Your task to perform on an android device: Clear the shopping cart on amazon.com. Search for "logitech g903" on amazon.com, select the first entry, and add it to the cart. Image 0: 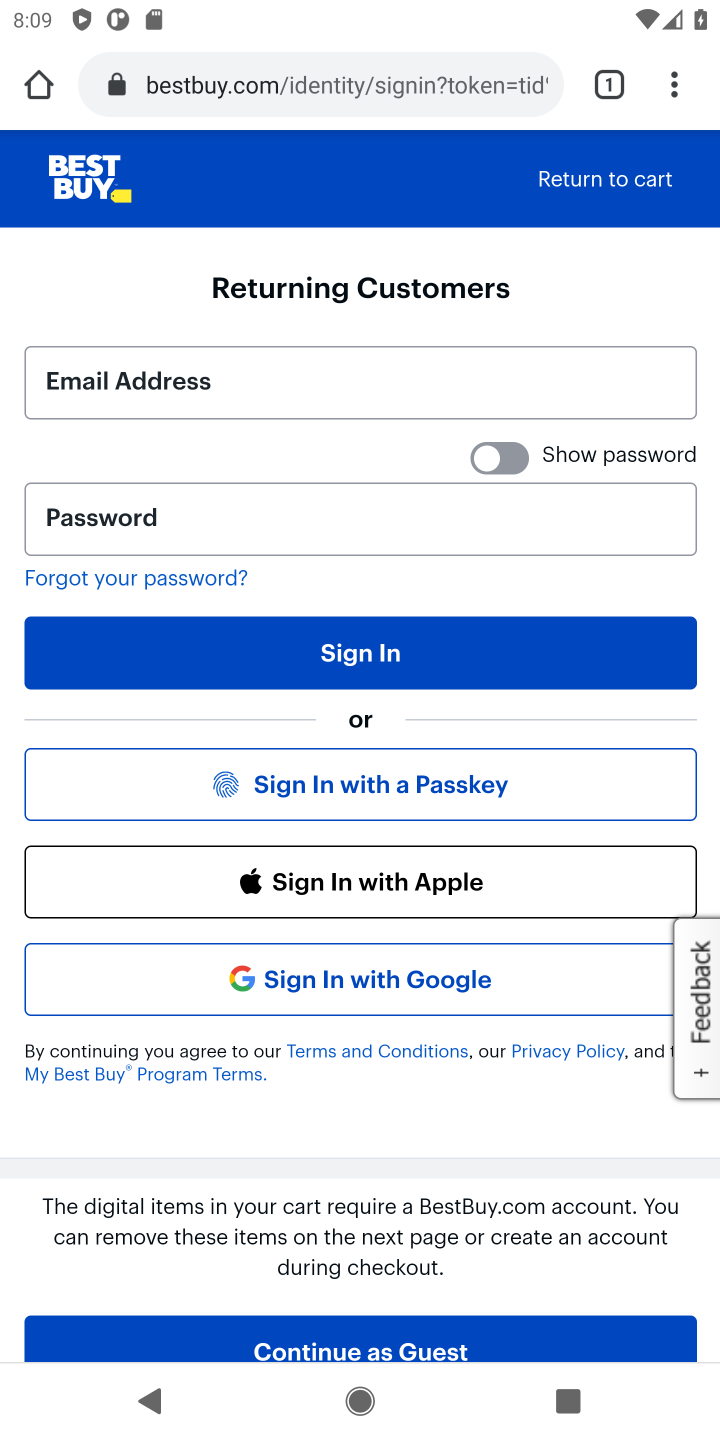
Step 0: click (292, 105)
Your task to perform on an android device: Clear the shopping cart on amazon.com. Search for "logitech g903" on amazon.com, select the first entry, and add it to the cart. Image 1: 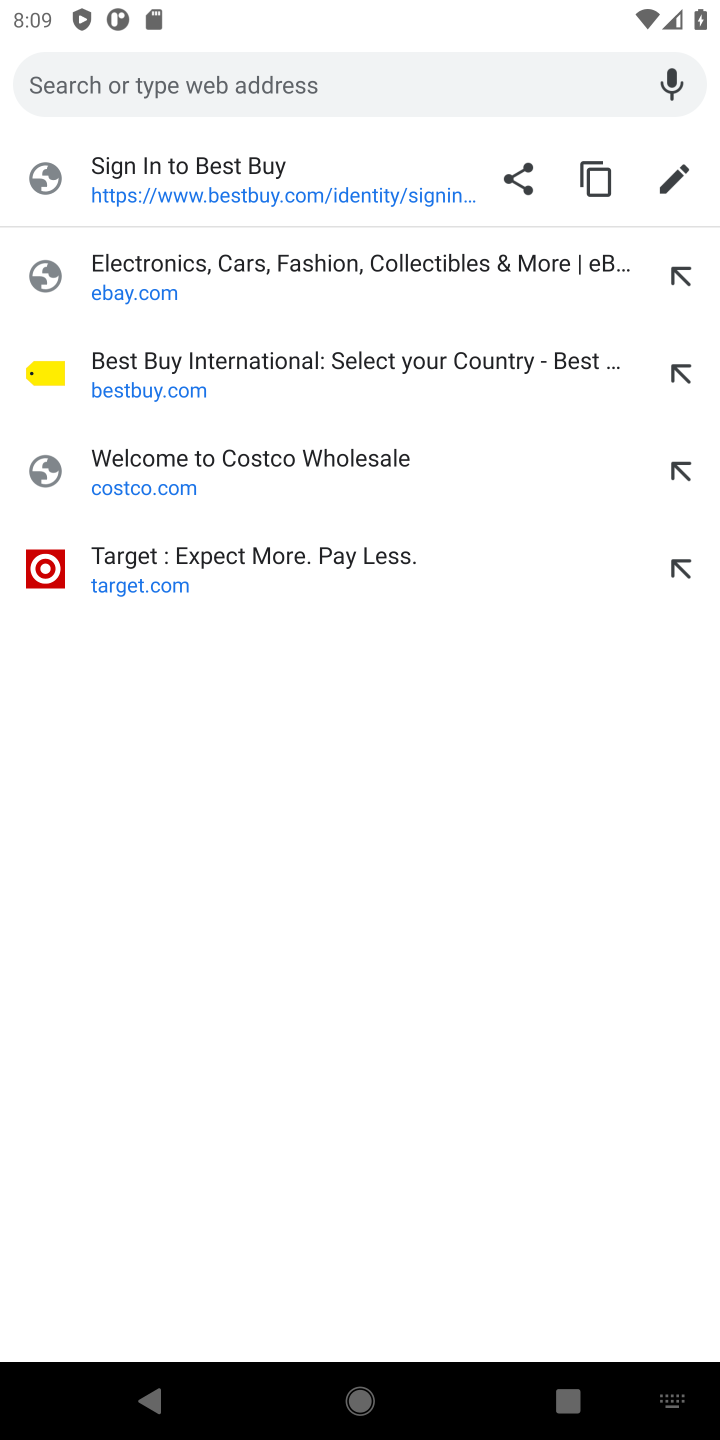
Step 1: type "amazon.com"
Your task to perform on an android device: Clear the shopping cart on amazon.com. Search for "logitech g903" on amazon.com, select the first entry, and add it to the cart. Image 2: 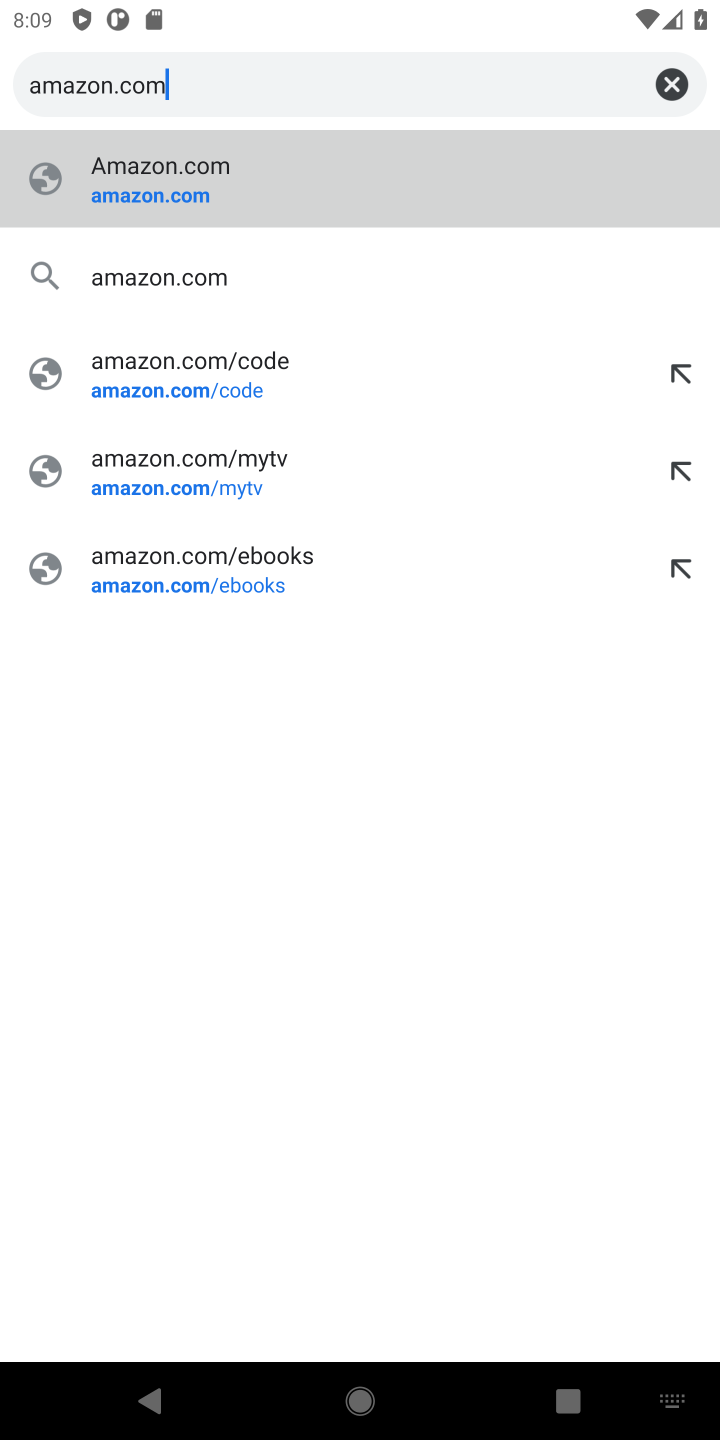
Step 2: click (178, 184)
Your task to perform on an android device: Clear the shopping cart on amazon.com. Search for "logitech g903" on amazon.com, select the first entry, and add it to the cart. Image 3: 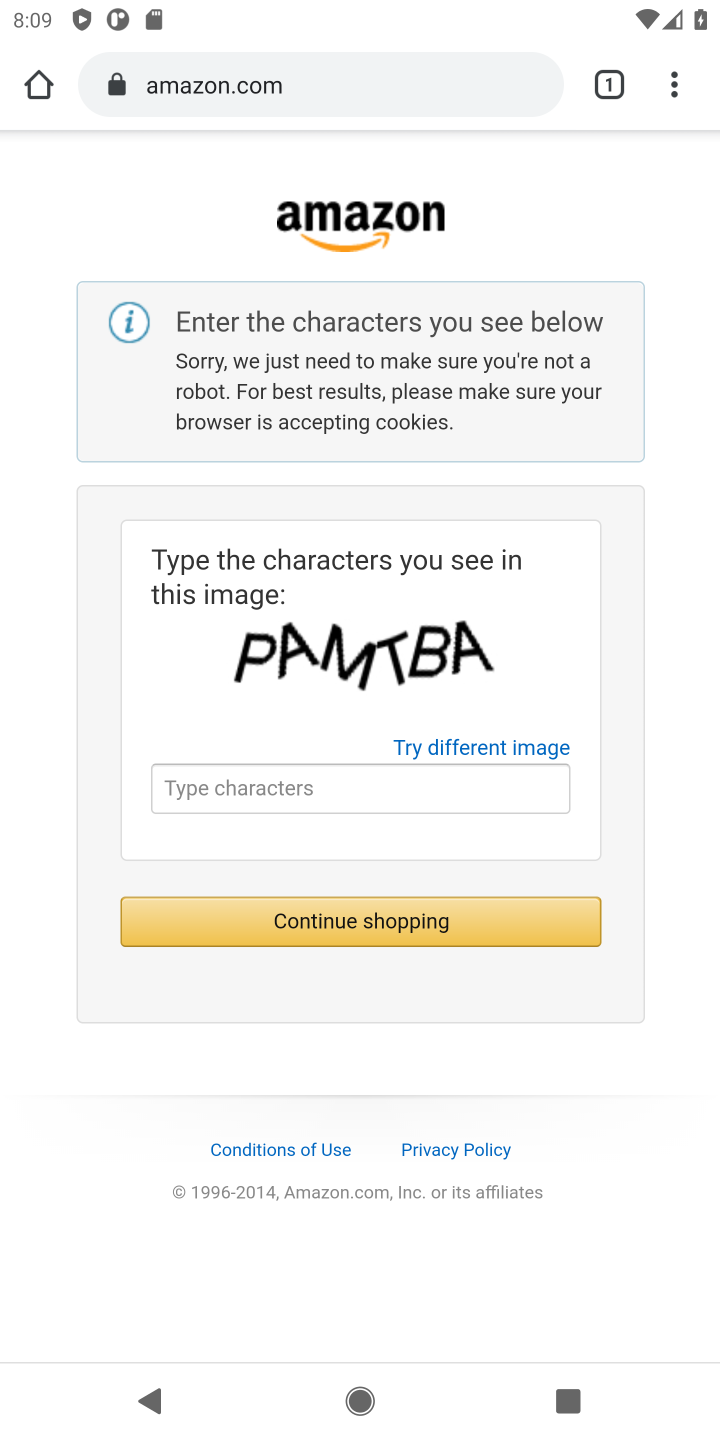
Step 3: click (266, 777)
Your task to perform on an android device: Clear the shopping cart on amazon.com. Search for "logitech g903" on amazon.com, select the first entry, and add it to the cart. Image 4: 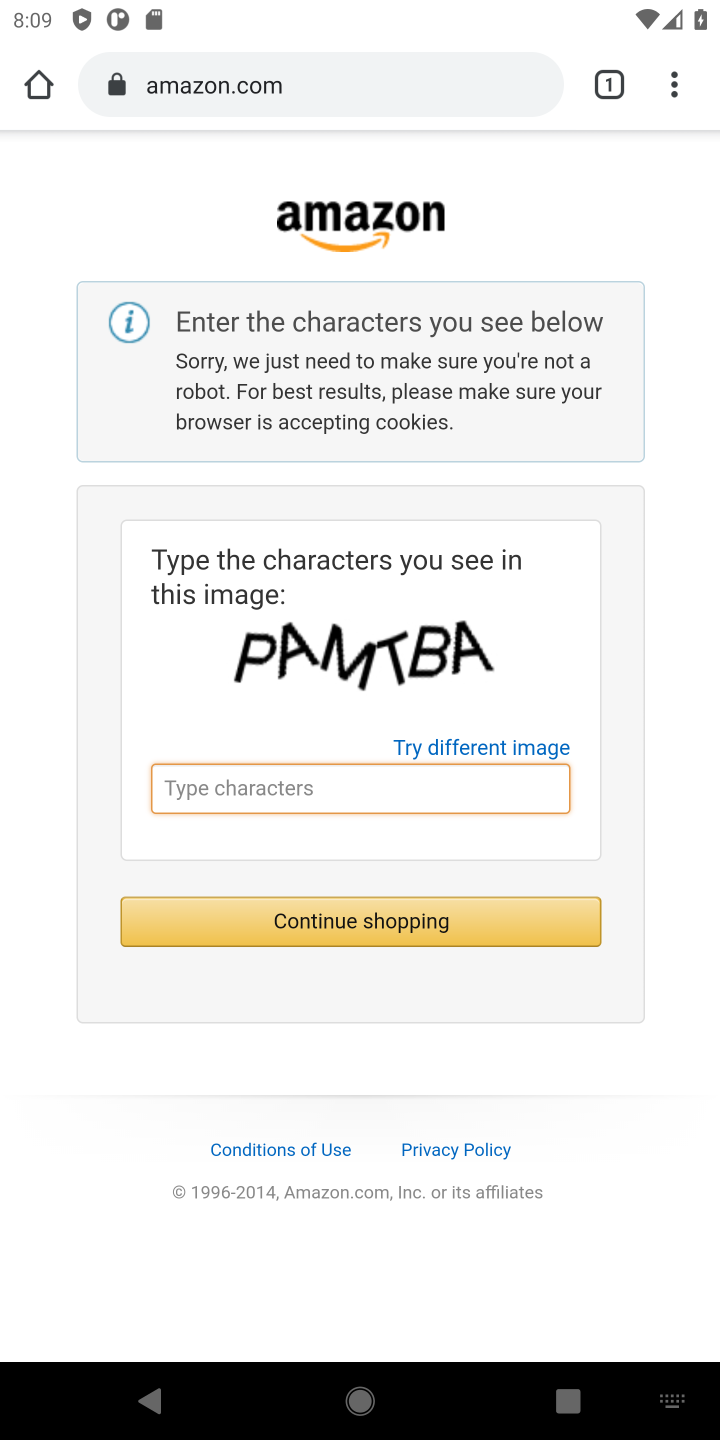
Step 4: type "PAMTBA"
Your task to perform on an android device: Clear the shopping cart on amazon.com. Search for "logitech g903" on amazon.com, select the first entry, and add it to the cart. Image 5: 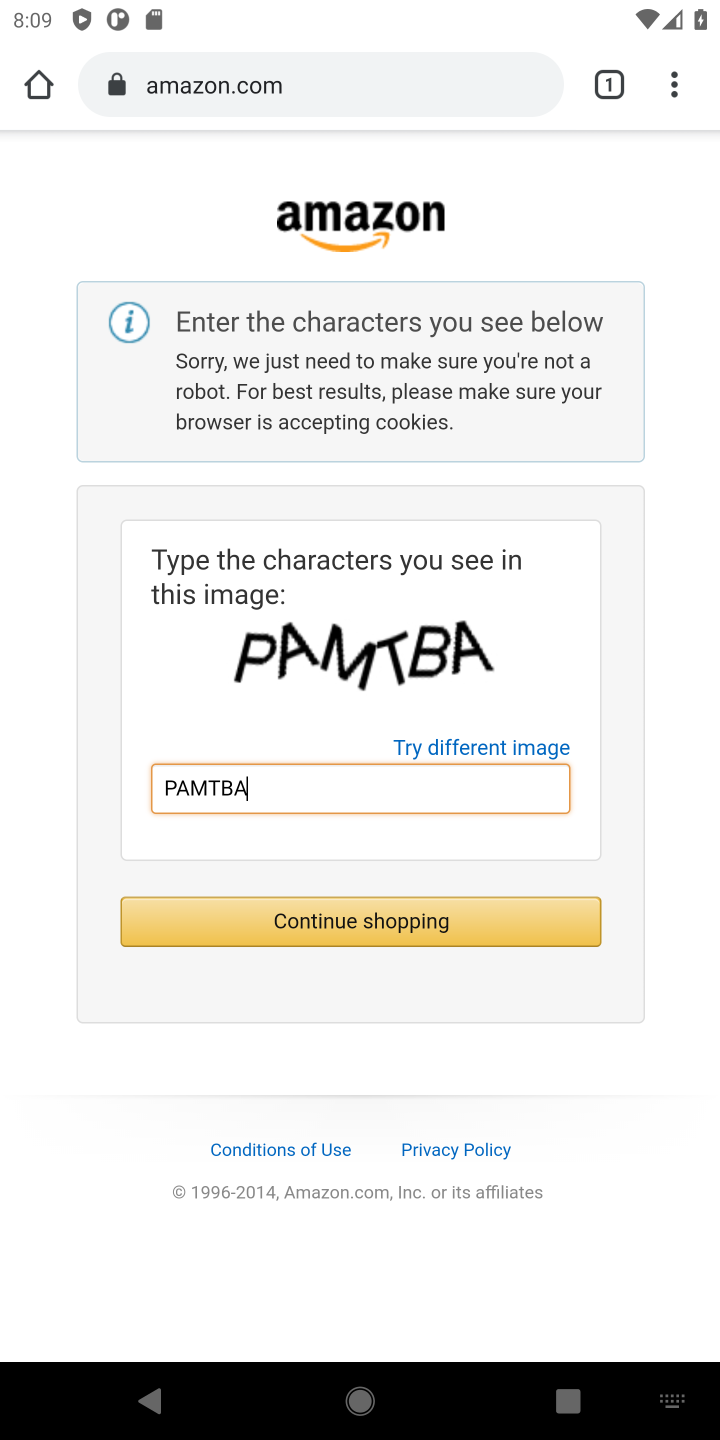
Step 5: click (417, 922)
Your task to perform on an android device: Clear the shopping cart on amazon.com. Search for "logitech g903" on amazon.com, select the first entry, and add it to the cart. Image 6: 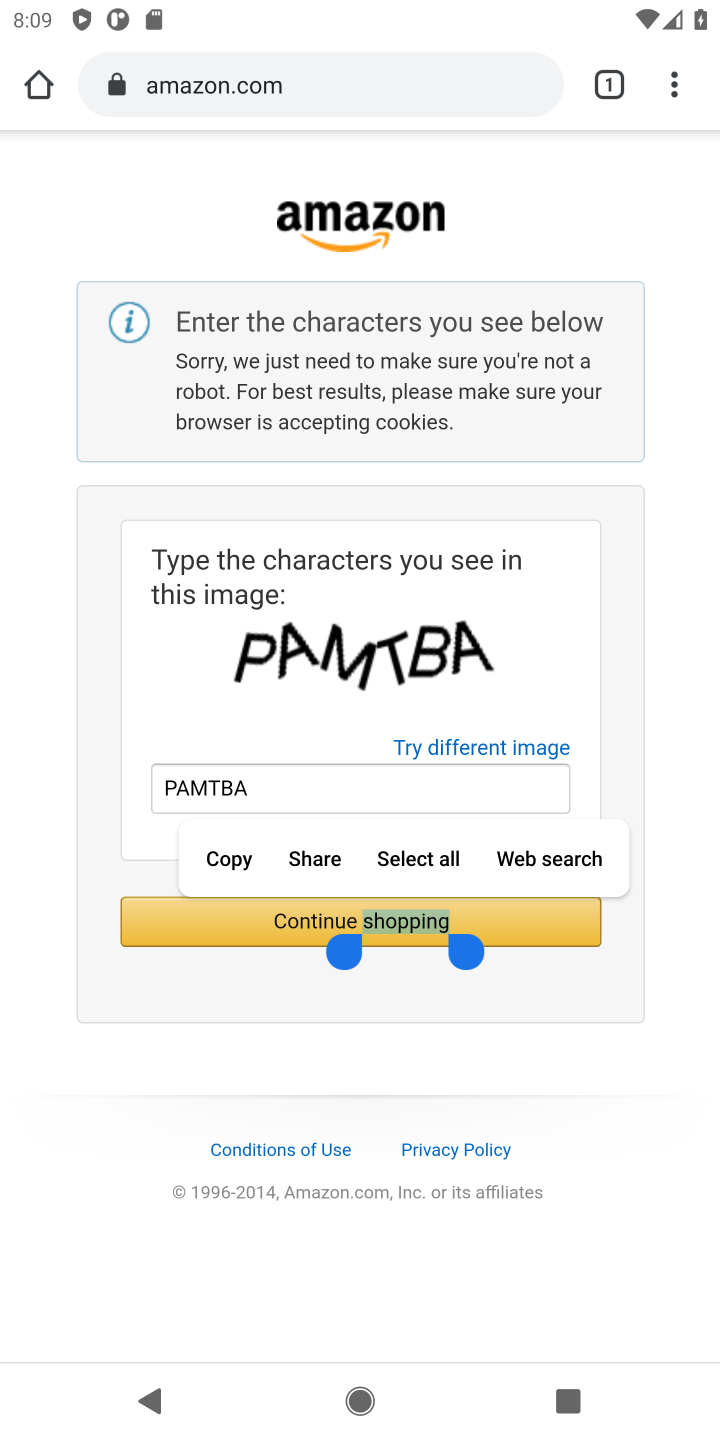
Step 6: click (332, 919)
Your task to perform on an android device: Clear the shopping cart on amazon.com. Search for "logitech g903" on amazon.com, select the first entry, and add it to the cart. Image 7: 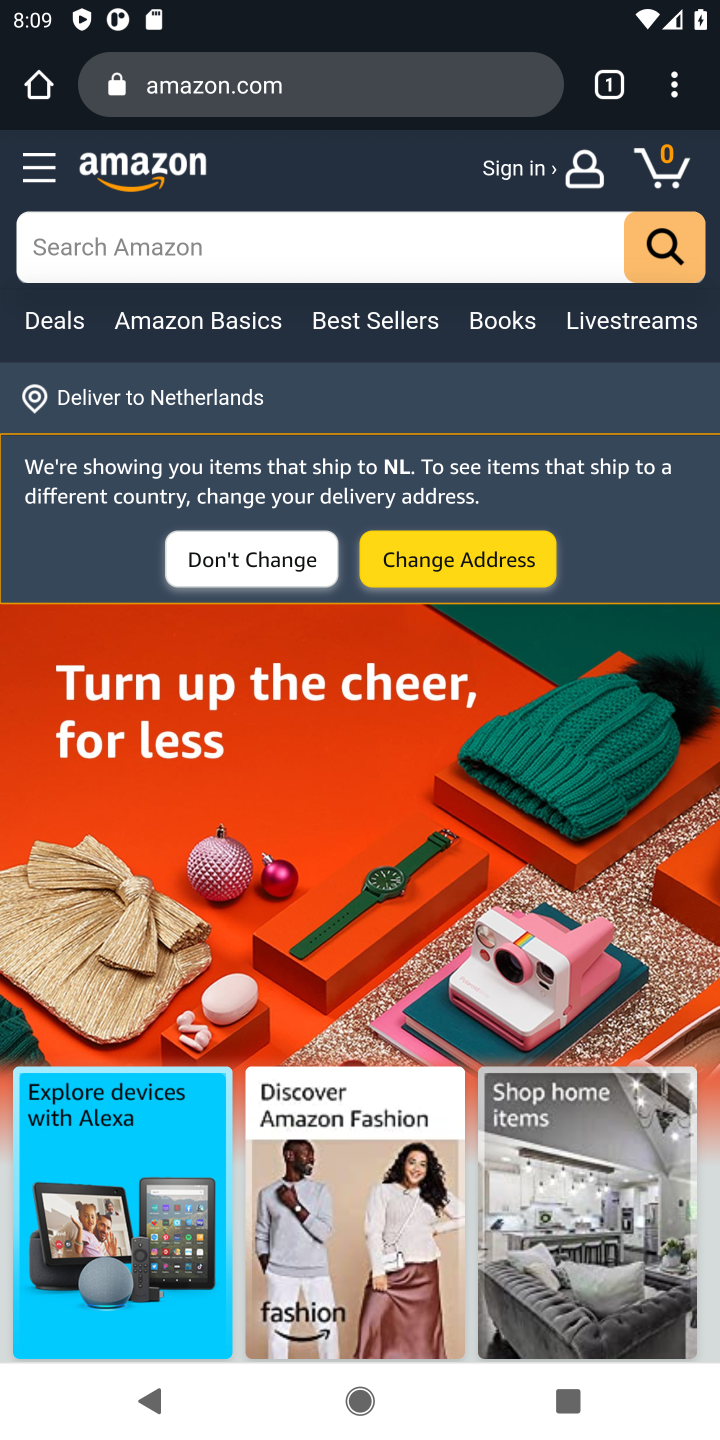
Step 7: click (660, 174)
Your task to perform on an android device: Clear the shopping cart on amazon.com. Search for "logitech g903" on amazon.com, select the first entry, and add it to the cart. Image 8: 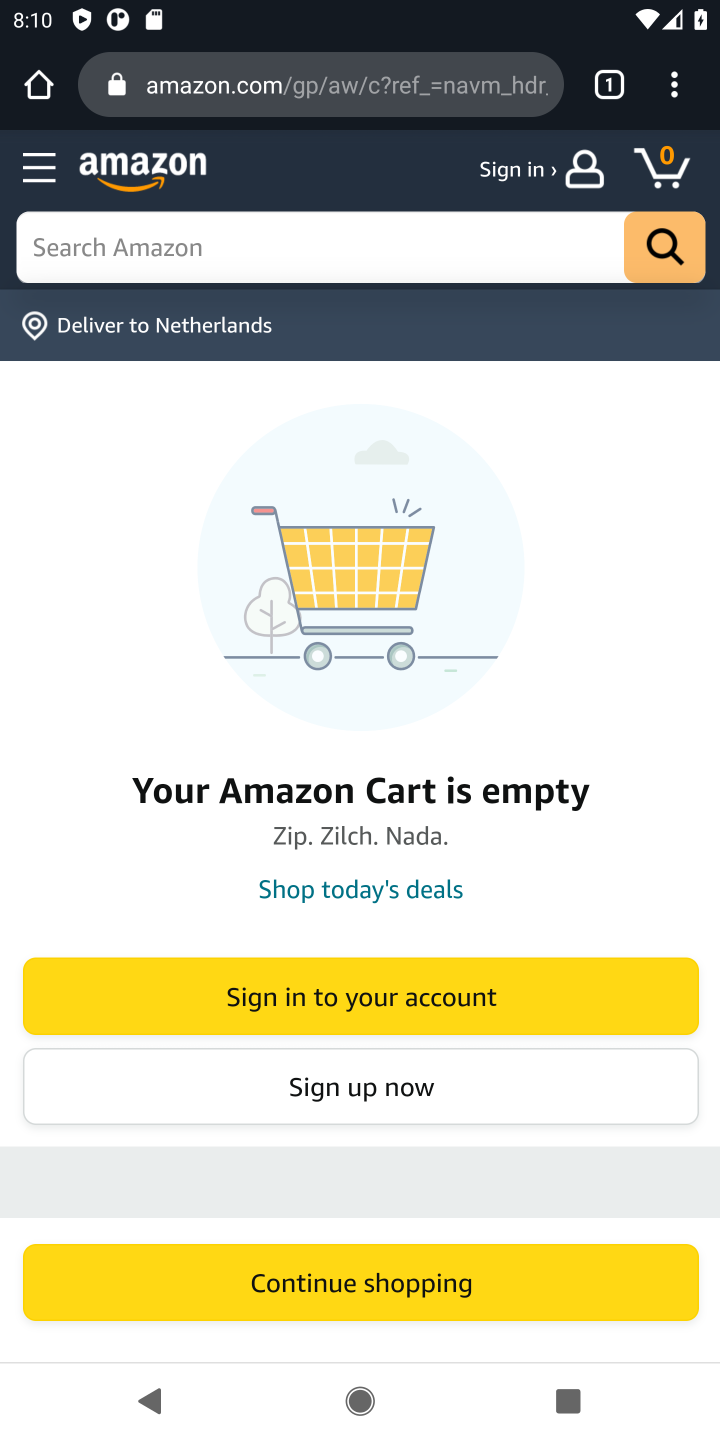
Step 8: click (324, 246)
Your task to perform on an android device: Clear the shopping cart on amazon.com. Search for "logitech g903" on amazon.com, select the first entry, and add it to the cart. Image 9: 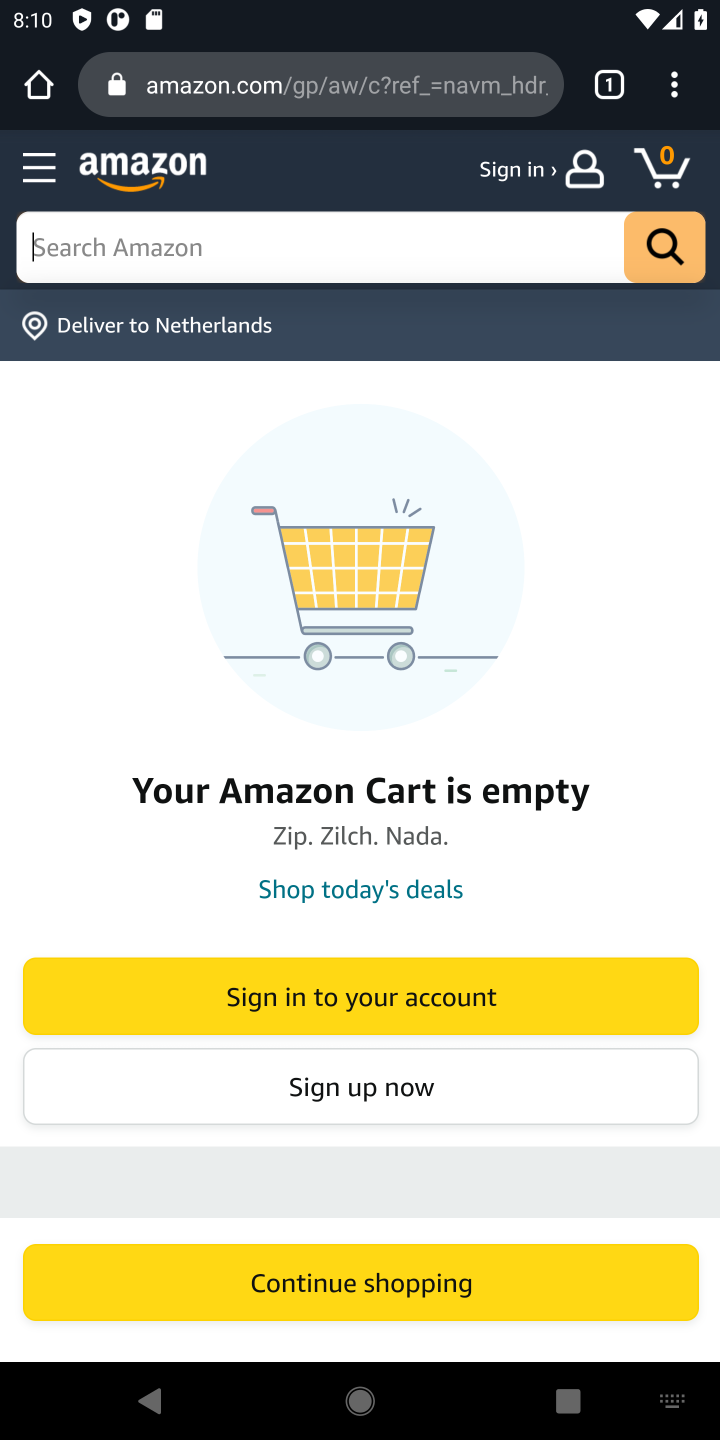
Step 9: type "logitech g903"
Your task to perform on an android device: Clear the shopping cart on amazon.com. Search for "logitech g903" on amazon.com, select the first entry, and add it to the cart. Image 10: 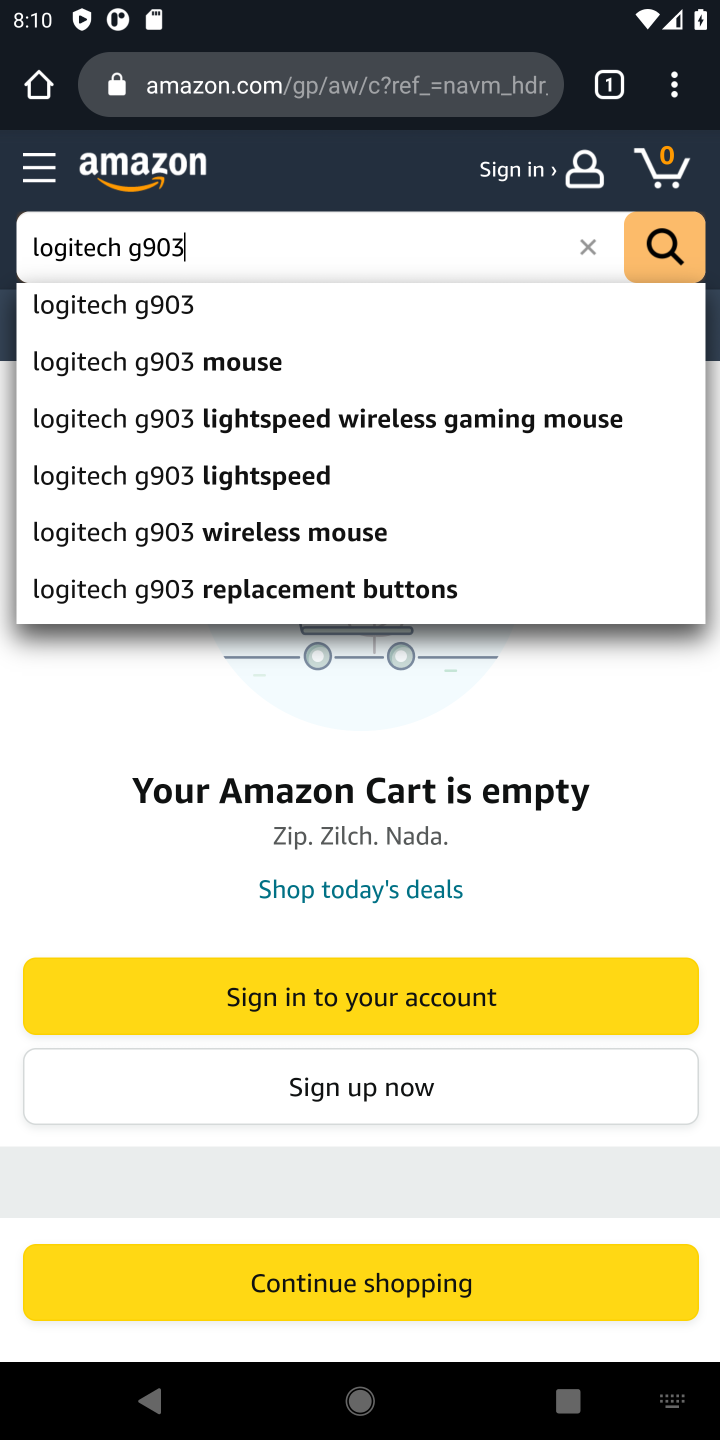
Step 10: click (151, 313)
Your task to perform on an android device: Clear the shopping cart on amazon.com. Search for "logitech g903" on amazon.com, select the first entry, and add it to the cart. Image 11: 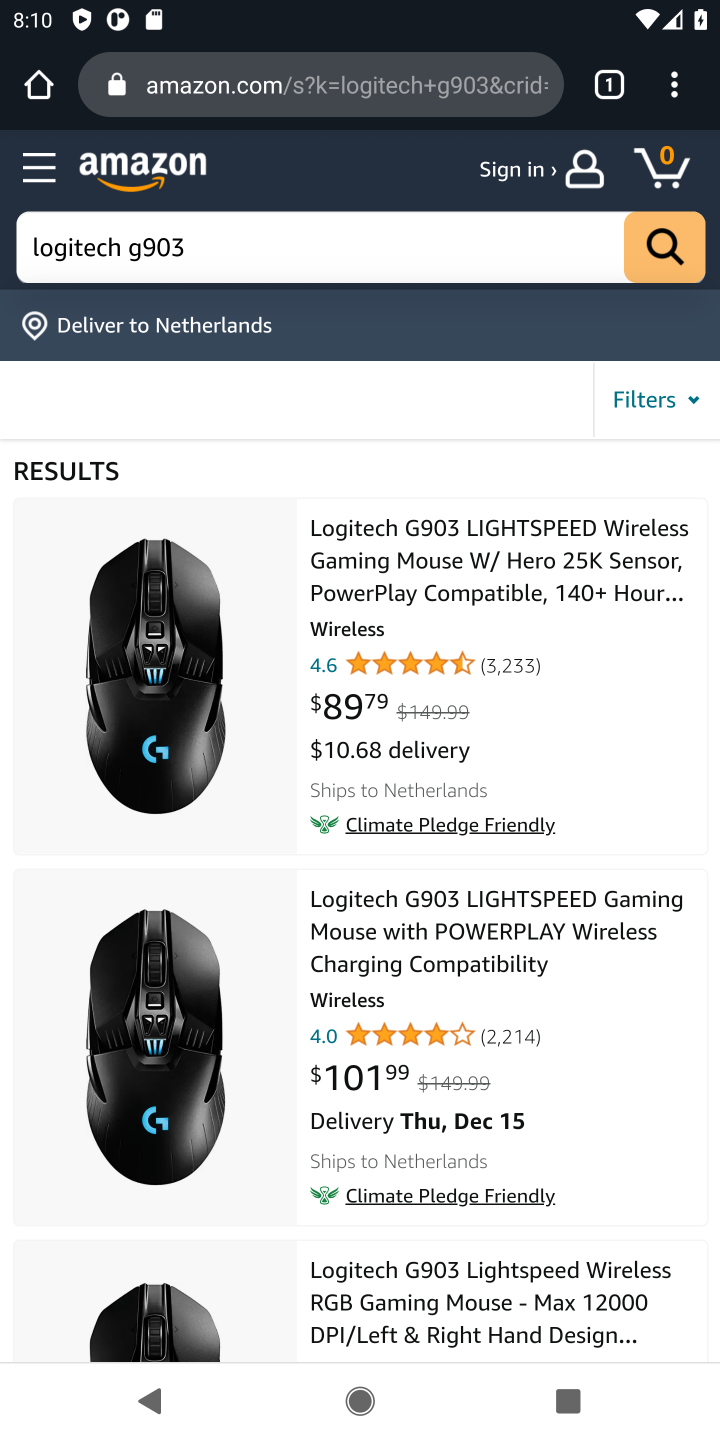
Step 11: click (392, 553)
Your task to perform on an android device: Clear the shopping cart on amazon.com. Search for "logitech g903" on amazon.com, select the first entry, and add it to the cart. Image 12: 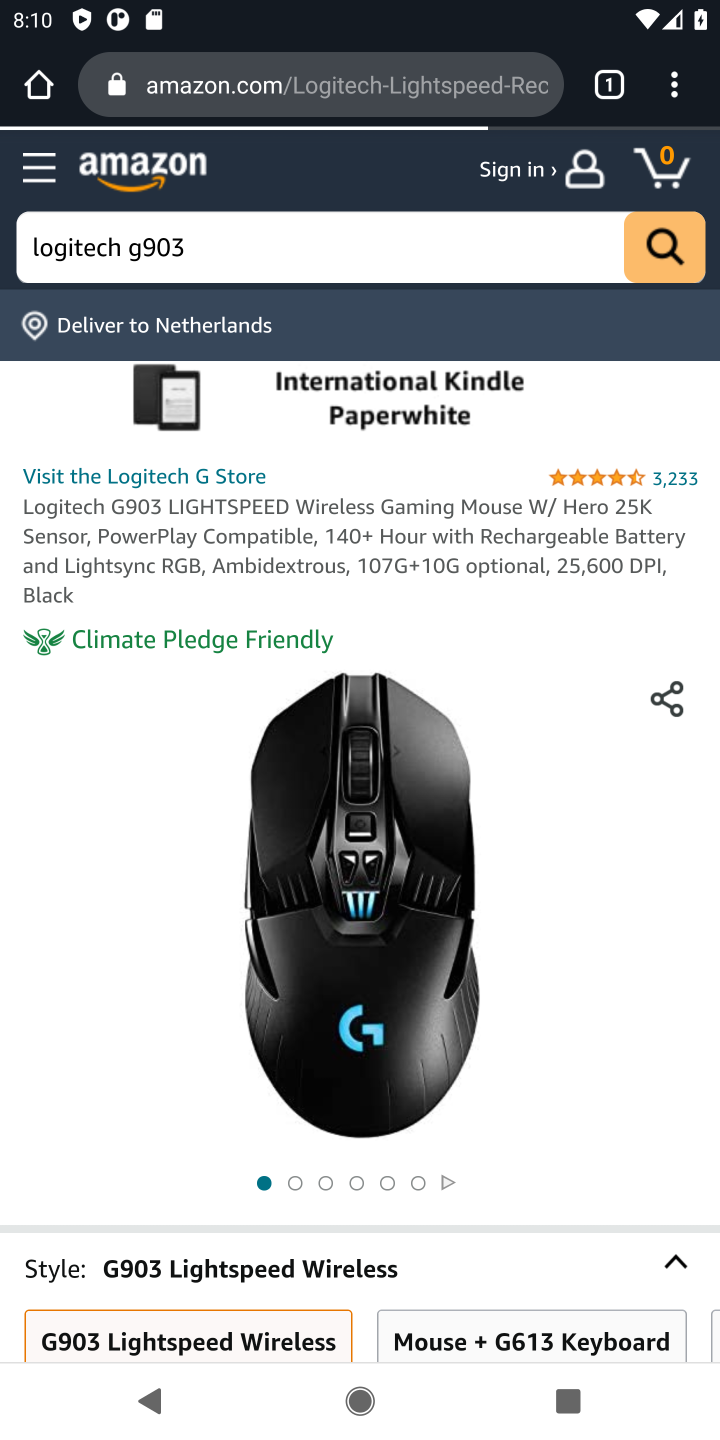
Step 12: drag from (508, 932) to (461, 203)
Your task to perform on an android device: Clear the shopping cart on amazon.com. Search for "logitech g903" on amazon.com, select the first entry, and add it to the cart. Image 13: 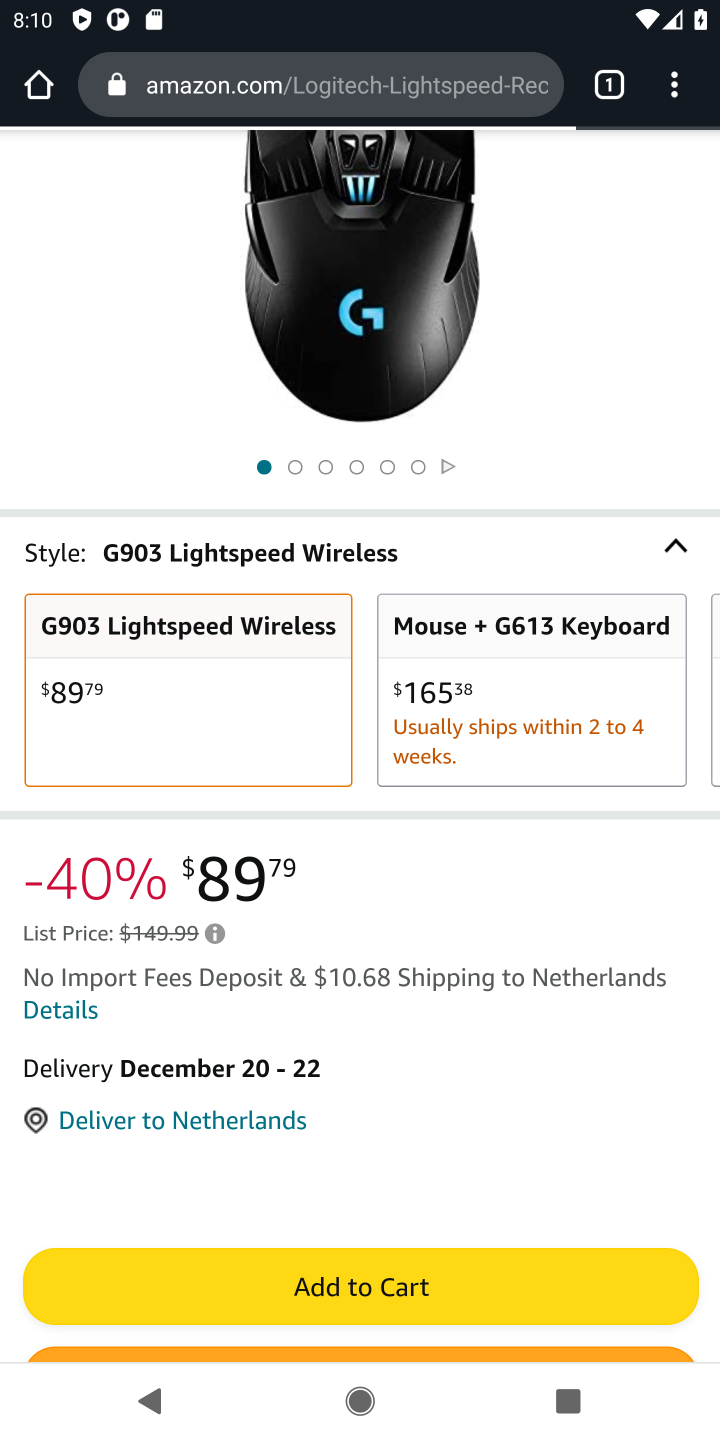
Step 13: click (341, 1261)
Your task to perform on an android device: Clear the shopping cart on amazon.com. Search for "logitech g903" on amazon.com, select the first entry, and add it to the cart. Image 14: 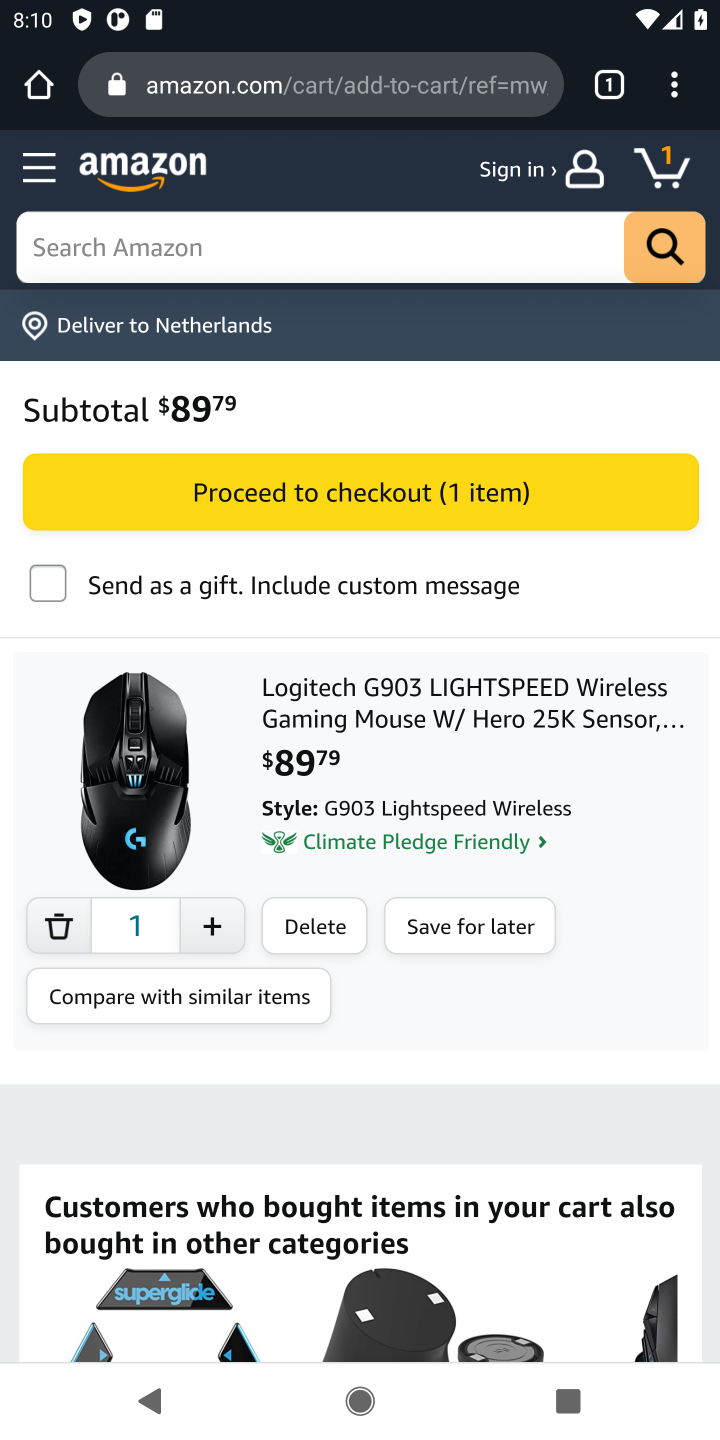
Step 14: task complete